Your task to perform on an android device: toggle pop-ups in chrome Image 0: 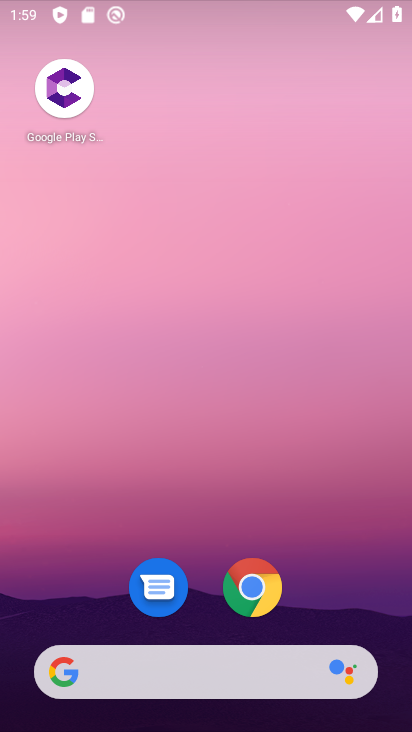
Step 0: drag from (324, 630) to (348, 14)
Your task to perform on an android device: toggle pop-ups in chrome Image 1: 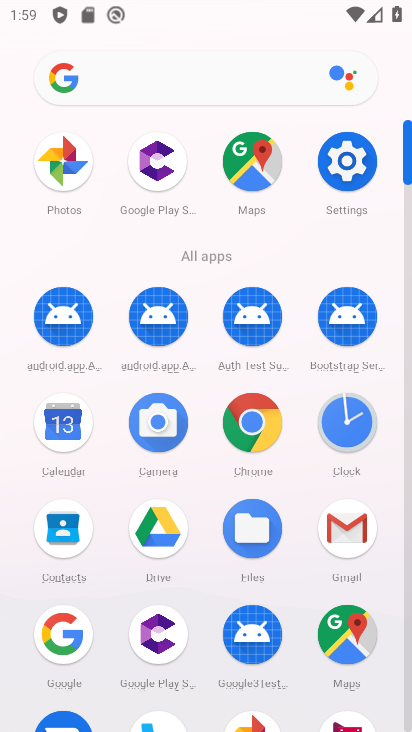
Step 1: drag from (202, 684) to (256, 338)
Your task to perform on an android device: toggle pop-ups in chrome Image 2: 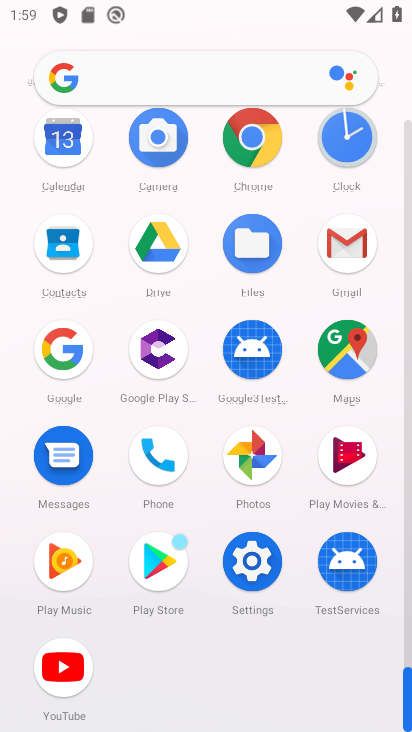
Step 2: click (251, 147)
Your task to perform on an android device: toggle pop-ups in chrome Image 3: 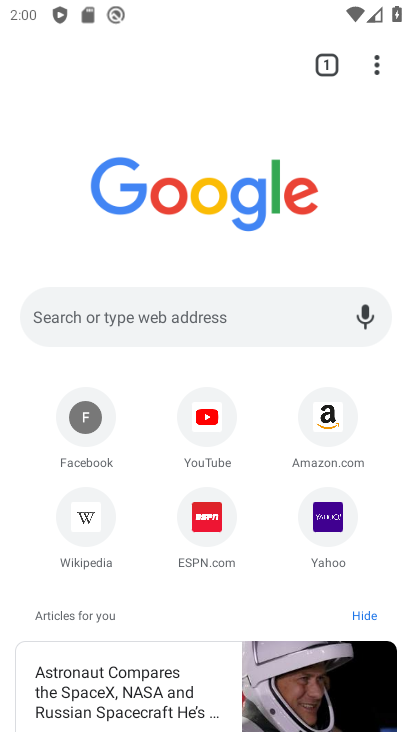
Step 3: click (374, 66)
Your task to perform on an android device: toggle pop-ups in chrome Image 4: 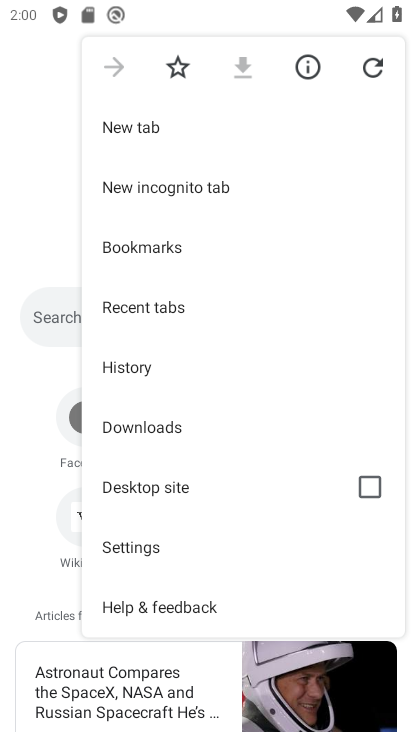
Step 4: click (192, 551)
Your task to perform on an android device: toggle pop-ups in chrome Image 5: 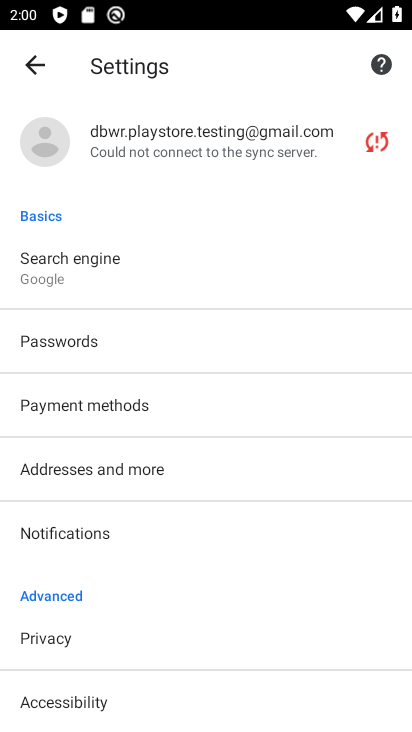
Step 5: drag from (130, 646) to (228, 197)
Your task to perform on an android device: toggle pop-ups in chrome Image 6: 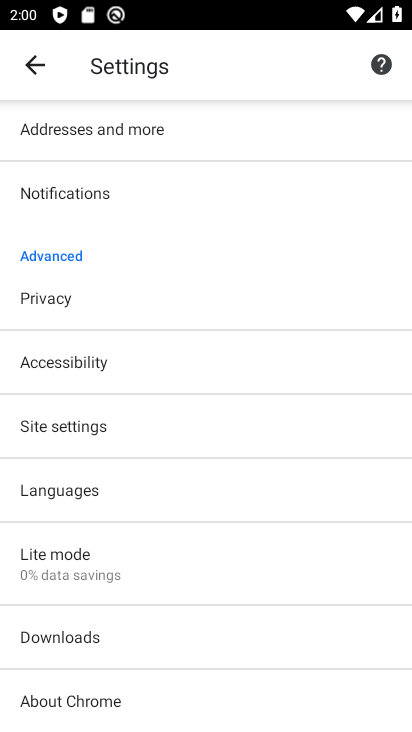
Step 6: click (111, 428)
Your task to perform on an android device: toggle pop-ups in chrome Image 7: 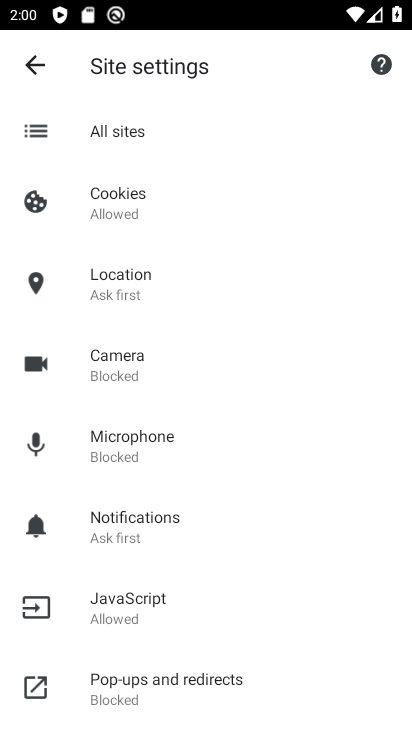
Step 7: click (147, 678)
Your task to perform on an android device: toggle pop-ups in chrome Image 8: 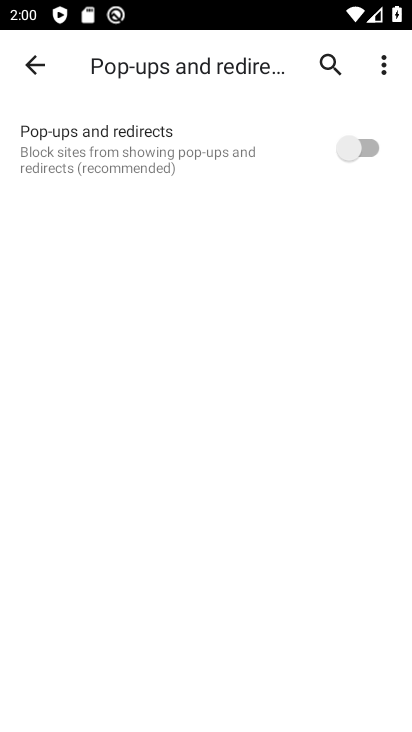
Step 8: click (366, 146)
Your task to perform on an android device: toggle pop-ups in chrome Image 9: 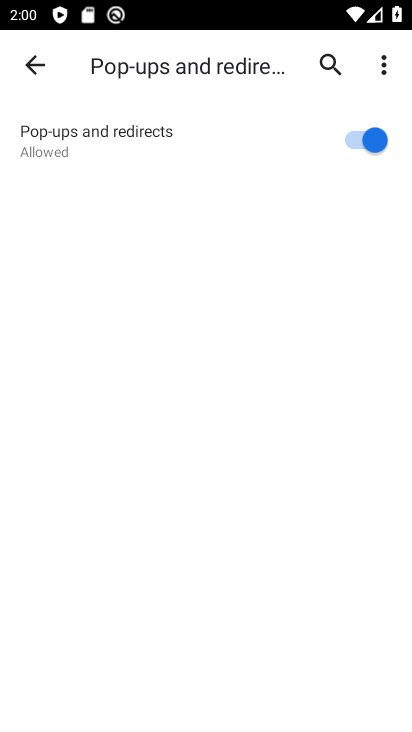
Step 9: task complete